Your task to perform on an android device: Open the web browser Image 0: 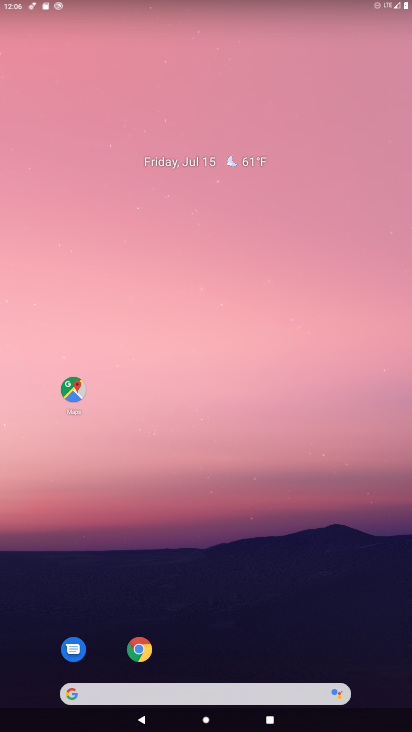
Step 0: drag from (242, 673) to (255, 0)
Your task to perform on an android device: Open the web browser Image 1: 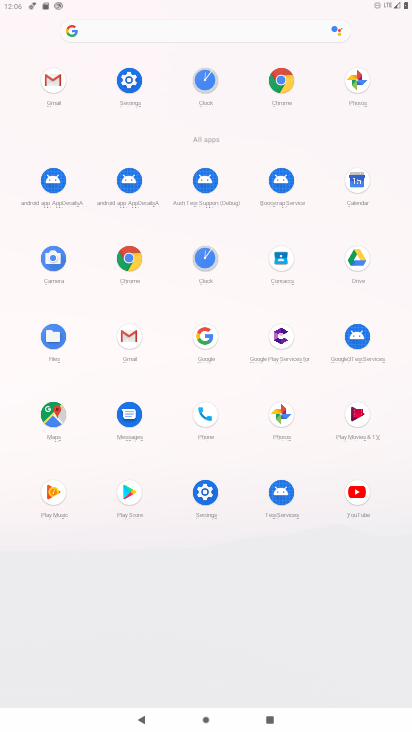
Step 1: click (281, 81)
Your task to perform on an android device: Open the web browser Image 2: 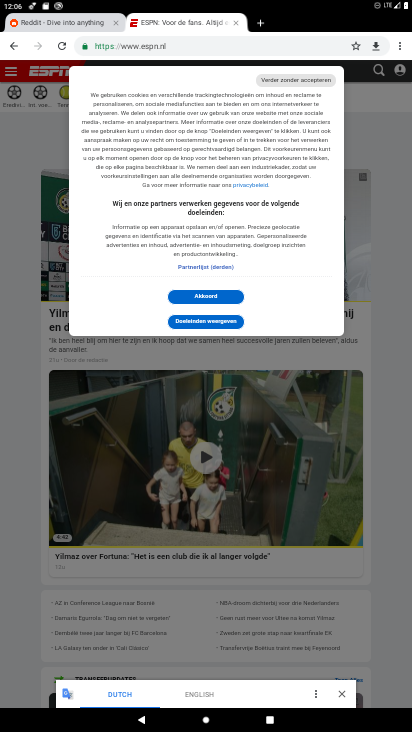
Step 2: task complete